Your task to perform on an android device: open a new tab in the chrome app Image 0: 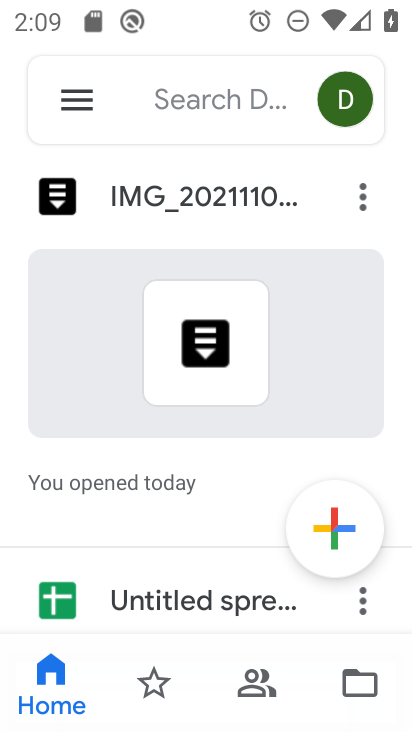
Step 0: press home button
Your task to perform on an android device: open a new tab in the chrome app Image 1: 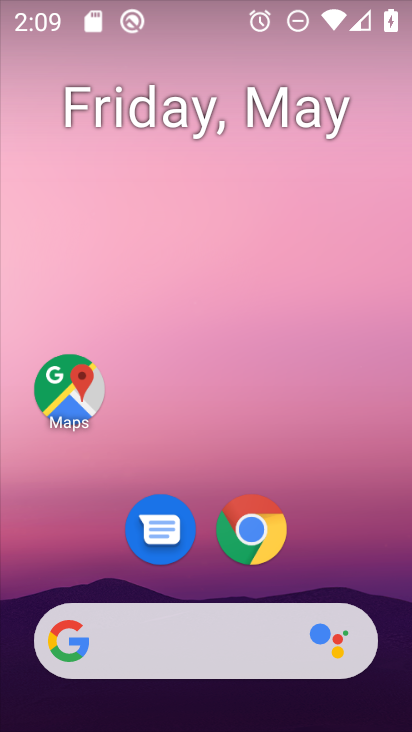
Step 1: click (260, 533)
Your task to perform on an android device: open a new tab in the chrome app Image 2: 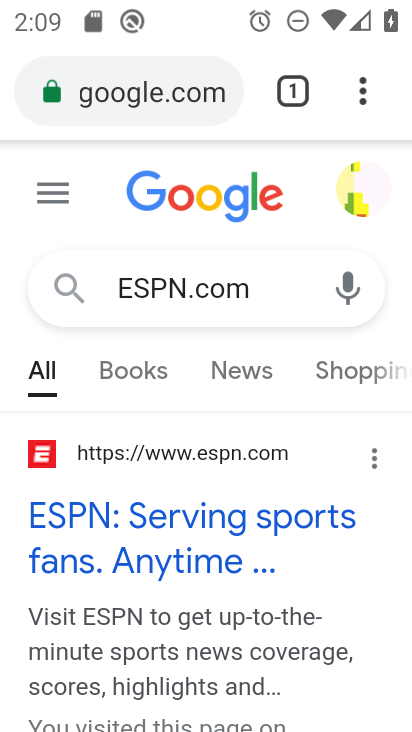
Step 2: click (356, 86)
Your task to perform on an android device: open a new tab in the chrome app Image 3: 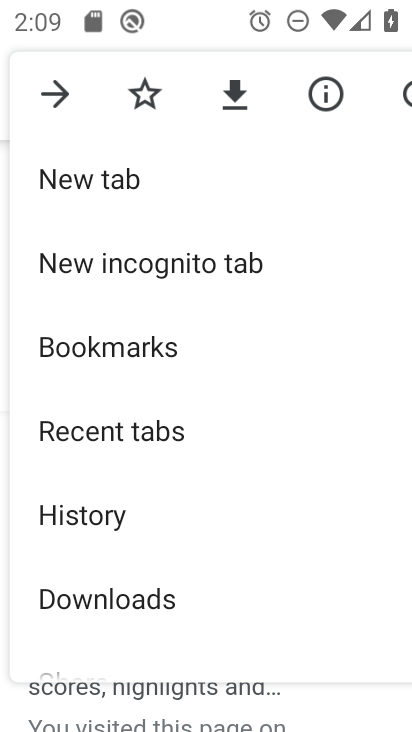
Step 3: click (92, 178)
Your task to perform on an android device: open a new tab in the chrome app Image 4: 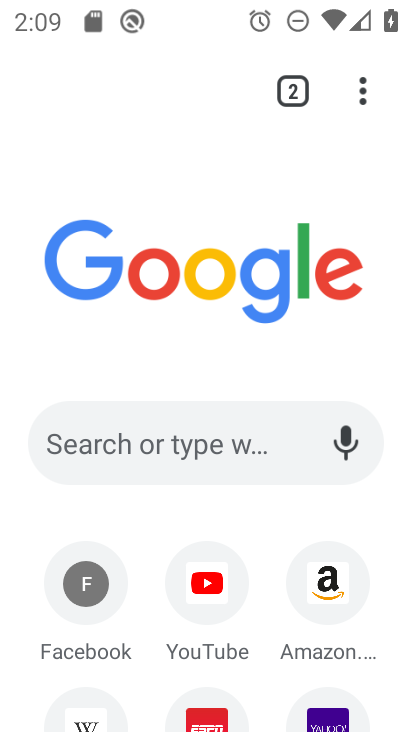
Step 4: task complete